Your task to perform on an android device: Search for vegetarian restaurants on Maps Image 0: 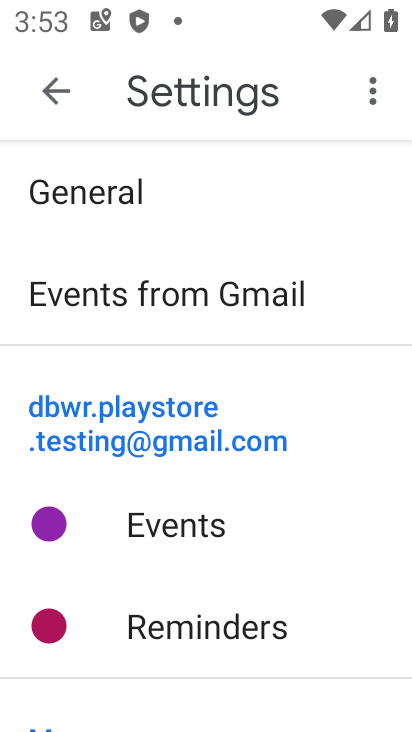
Step 0: press home button
Your task to perform on an android device: Search for vegetarian restaurants on Maps Image 1: 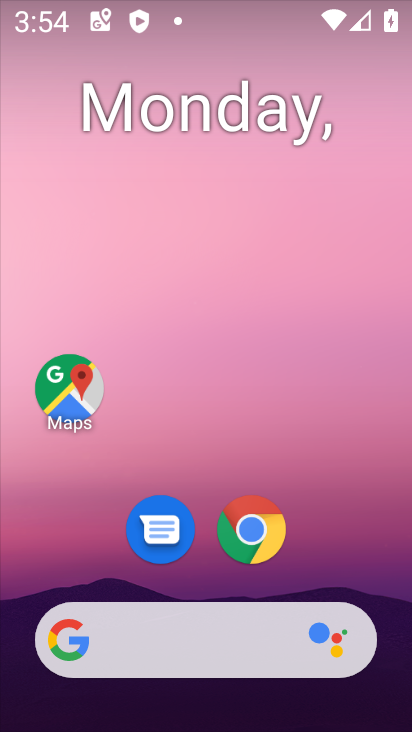
Step 1: drag from (240, 661) to (217, 209)
Your task to perform on an android device: Search for vegetarian restaurants on Maps Image 2: 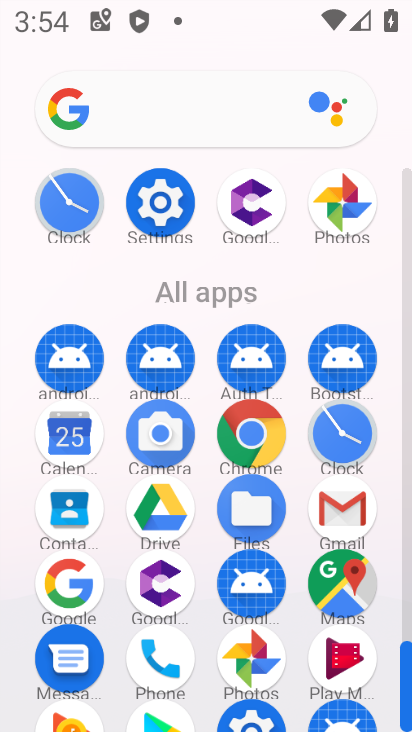
Step 2: click (329, 596)
Your task to perform on an android device: Search for vegetarian restaurants on Maps Image 3: 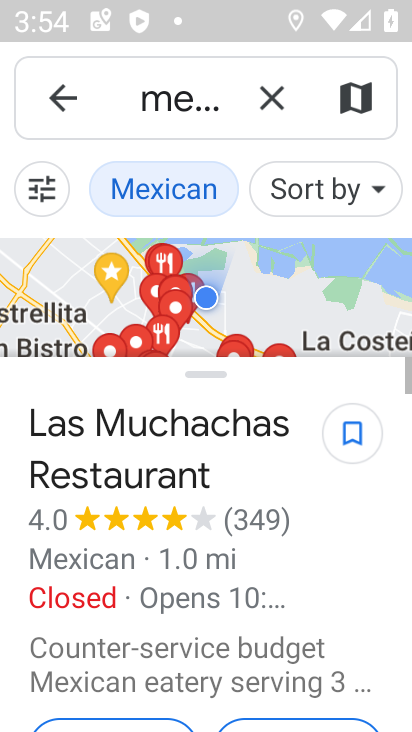
Step 3: click (277, 89)
Your task to perform on an android device: Search for vegetarian restaurants on Maps Image 4: 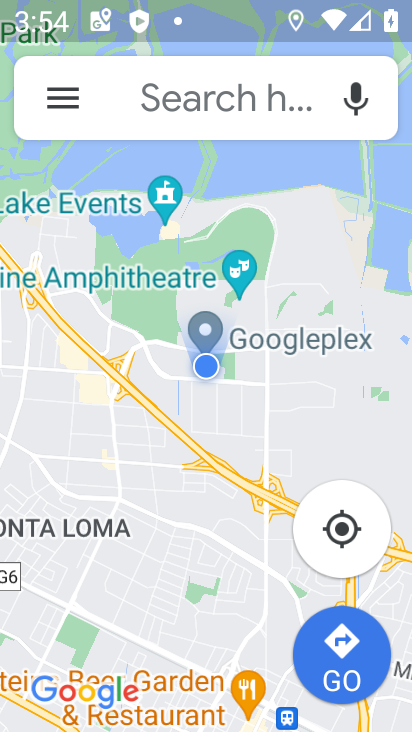
Step 4: click (209, 98)
Your task to perform on an android device: Search for vegetarian restaurants on Maps Image 5: 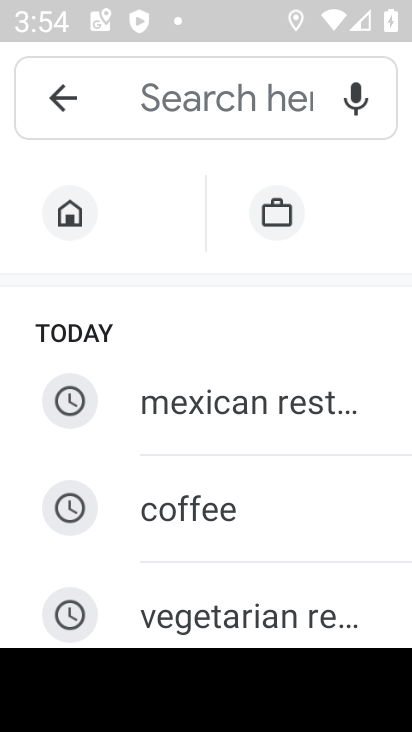
Step 5: type "Vegetarian restaurants"
Your task to perform on an android device: Search for vegetarian restaurants on Maps Image 6: 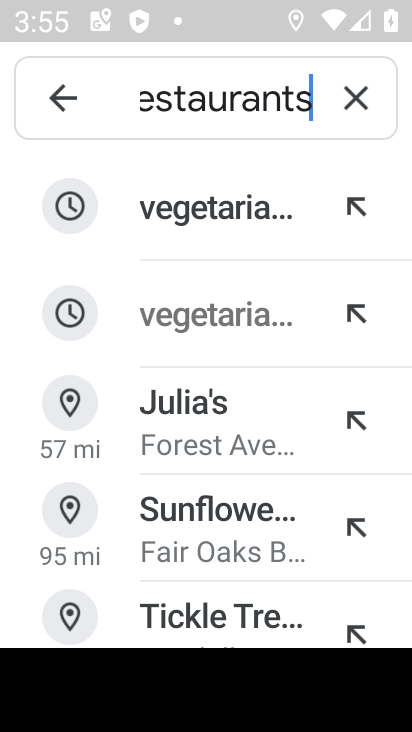
Step 6: click (163, 213)
Your task to perform on an android device: Search for vegetarian restaurants on Maps Image 7: 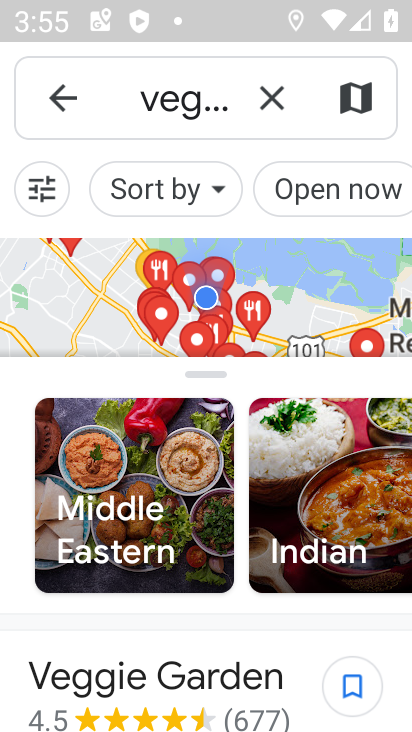
Step 7: task complete